Your task to perform on an android device: change keyboard looks Image 0: 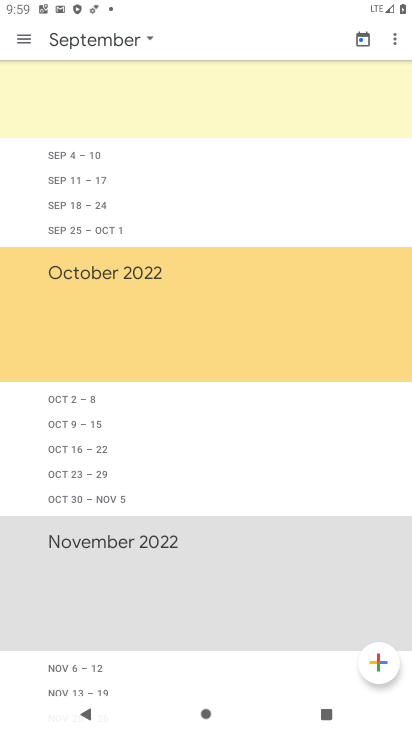
Step 0: press home button
Your task to perform on an android device: change keyboard looks Image 1: 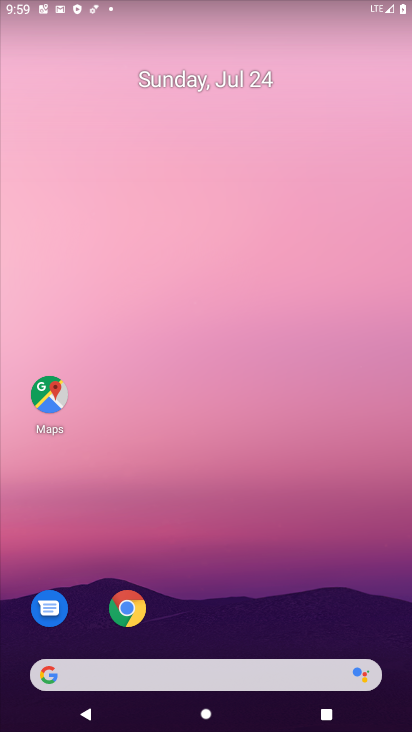
Step 1: drag from (210, 649) to (222, 84)
Your task to perform on an android device: change keyboard looks Image 2: 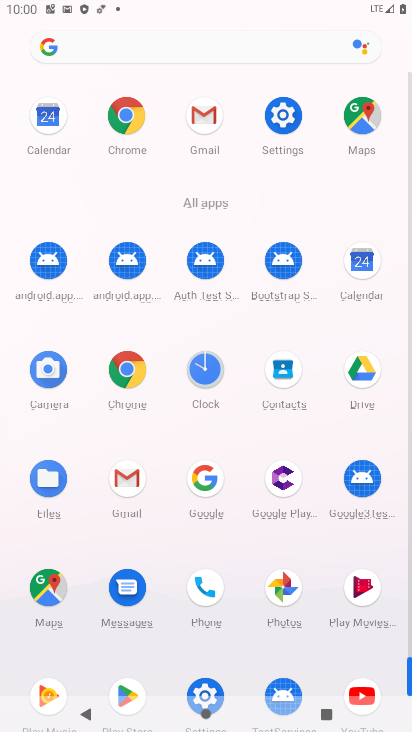
Step 2: click (280, 111)
Your task to perform on an android device: change keyboard looks Image 3: 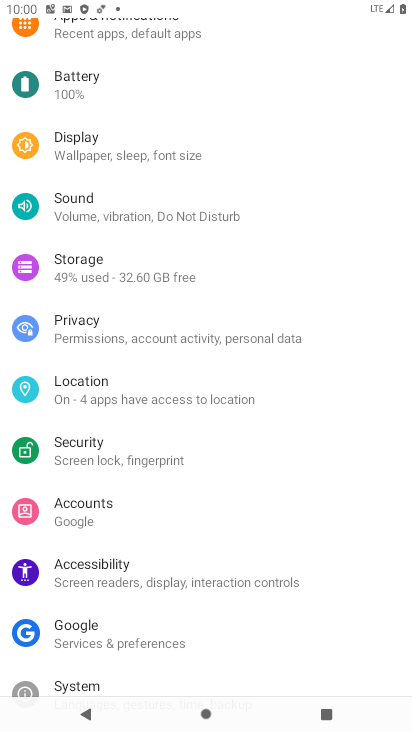
Step 3: click (136, 675)
Your task to perform on an android device: change keyboard looks Image 4: 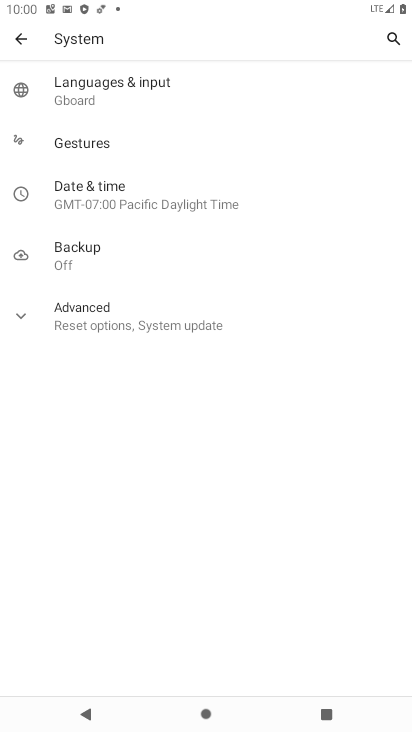
Step 4: click (58, 89)
Your task to perform on an android device: change keyboard looks Image 5: 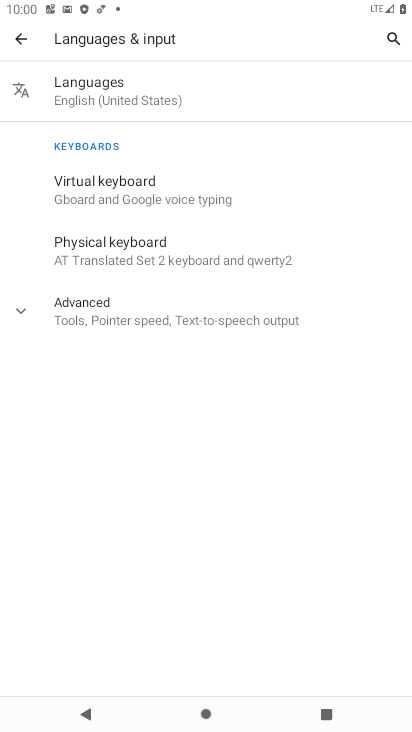
Step 5: click (162, 173)
Your task to perform on an android device: change keyboard looks Image 6: 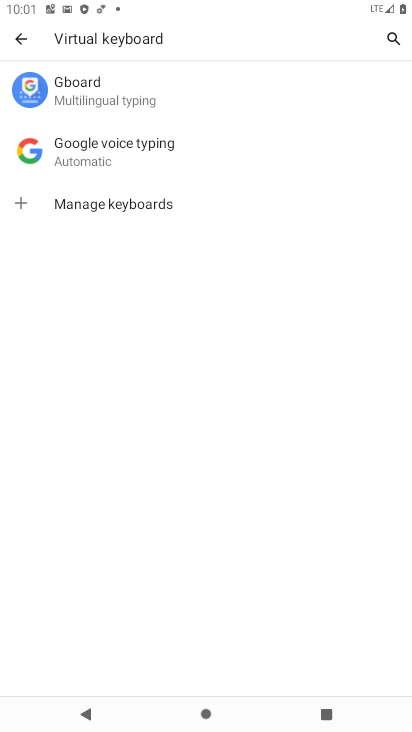
Step 6: click (123, 87)
Your task to perform on an android device: change keyboard looks Image 7: 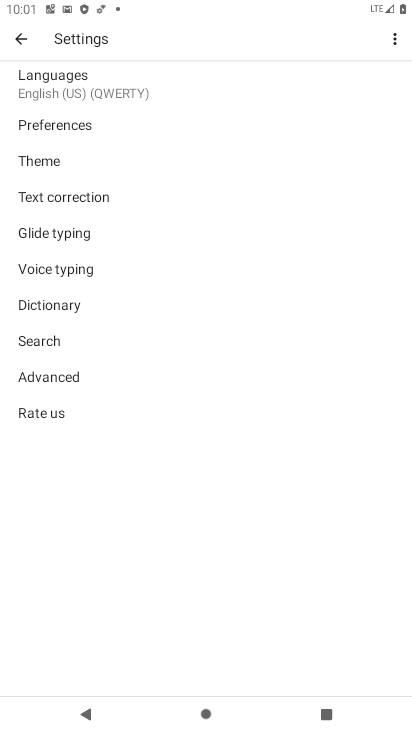
Step 7: click (101, 83)
Your task to perform on an android device: change keyboard looks Image 8: 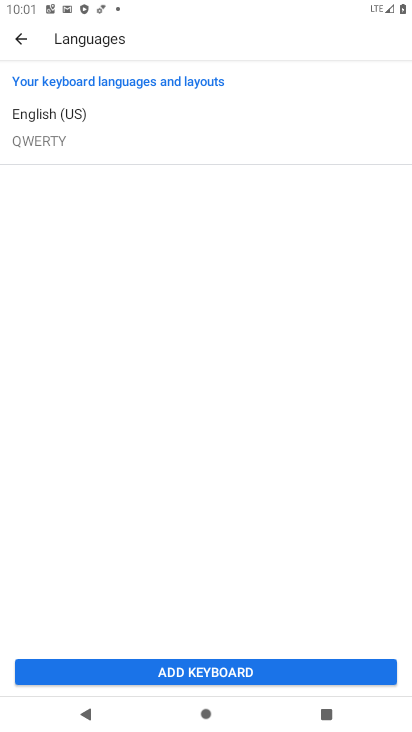
Step 8: click (21, 33)
Your task to perform on an android device: change keyboard looks Image 9: 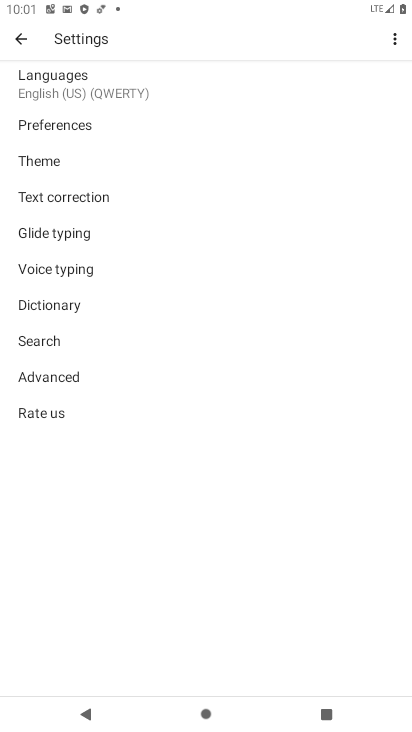
Step 9: click (69, 160)
Your task to perform on an android device: change keyboard looks Image 10: 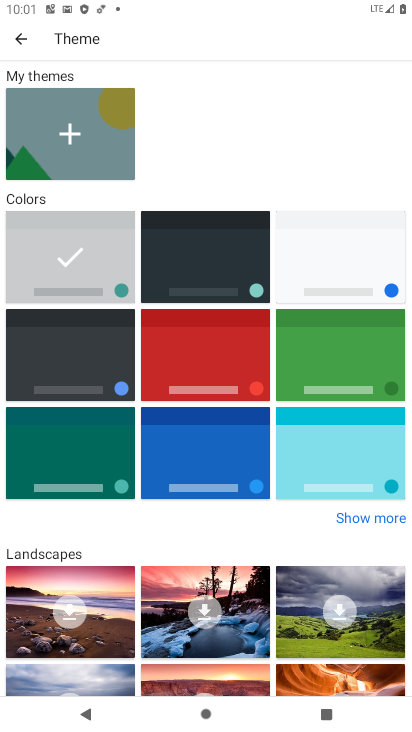
Step 10: click (224, 360)
Your task to perform on an android device: change keyboard looks Image 11: 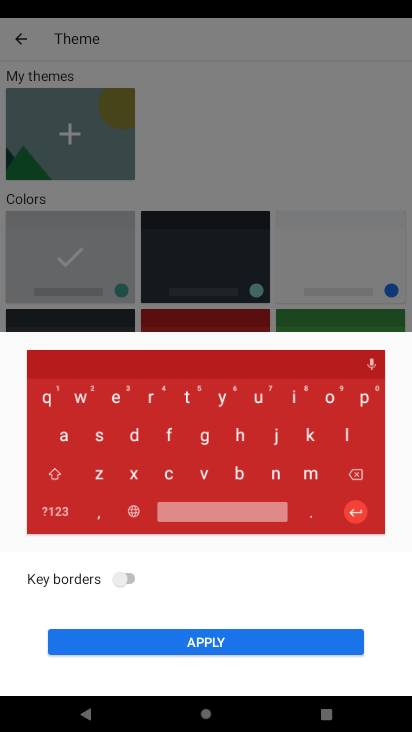
Step 11: click (208, 641)
Your task to perform on an android device: change keyboard looks Image 12: 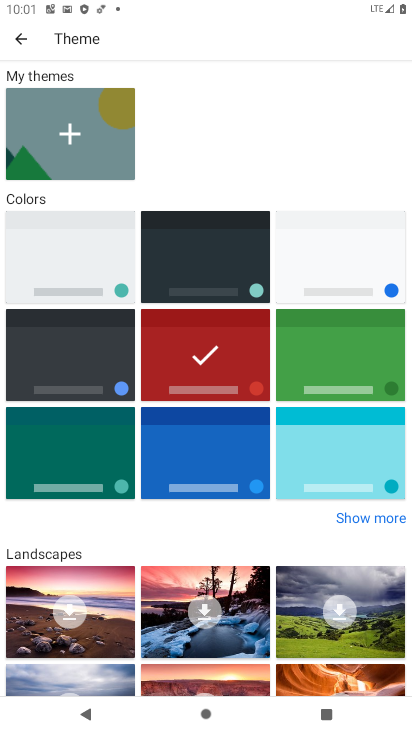
Step 12: task complete